Your task to perform on an android device: Open privacy settings Image 0: 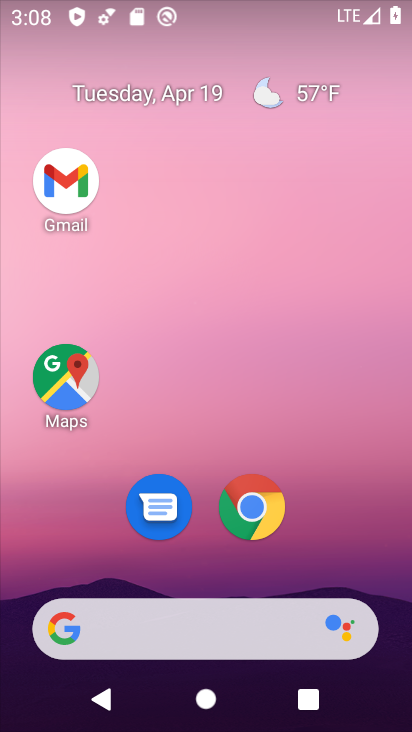
Step 0: click (264, 523)
Your task to perform on an android device: Open privacy settings Image 1: 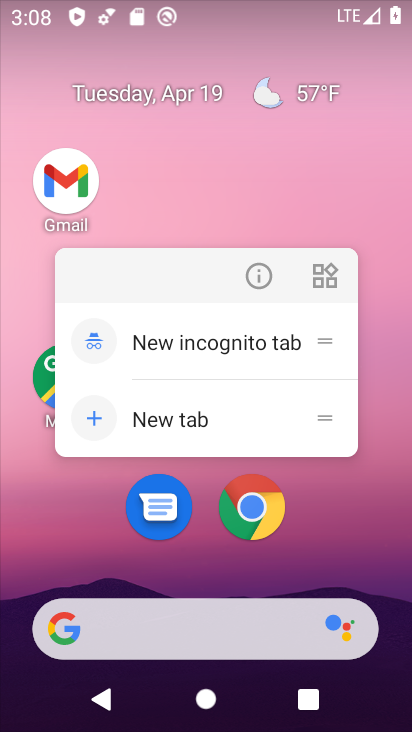
Step 1: click (230, 493)
Your task to perform on an android device: Open privacy settings Image 2: 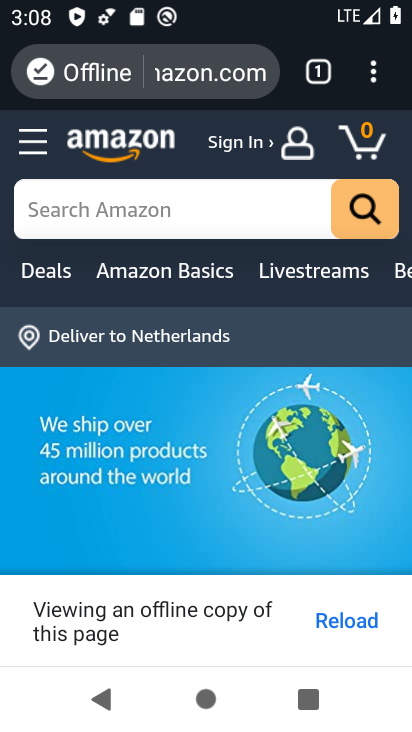
Step 2: click (371, 71)
Your task to perform on an android device: Open privacy settings Image 3: 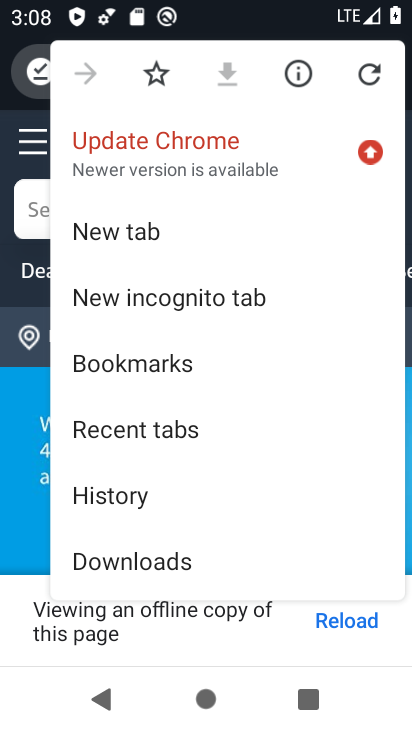
Step 3: drag from (234, 514) to (320, 90)
Your task to perform on an android device: Open privacy settings Image 4: 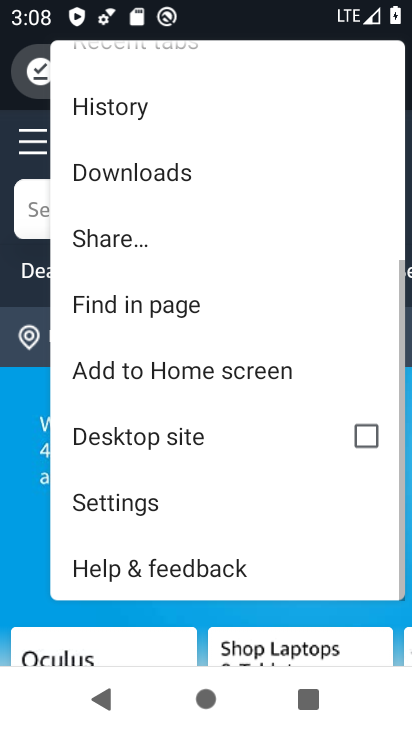
Step 4: click (226, 489)
Your task to perform on an android device: Open privacy settings Image 5: 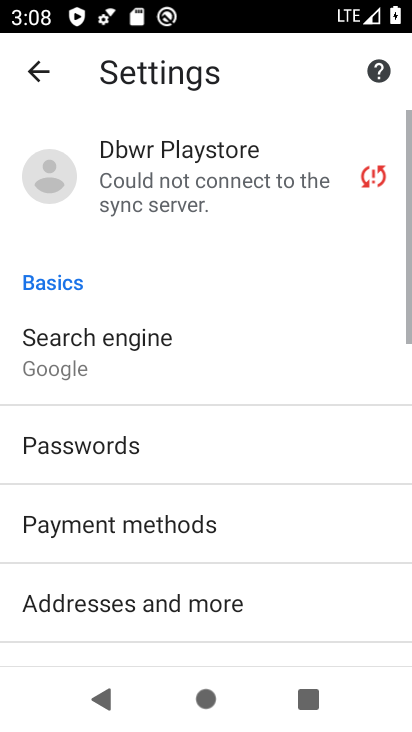
Step 5: drag from (205, 557) to (214, 182)
Your task to perform on an android device: Open privacy settings Image 6: 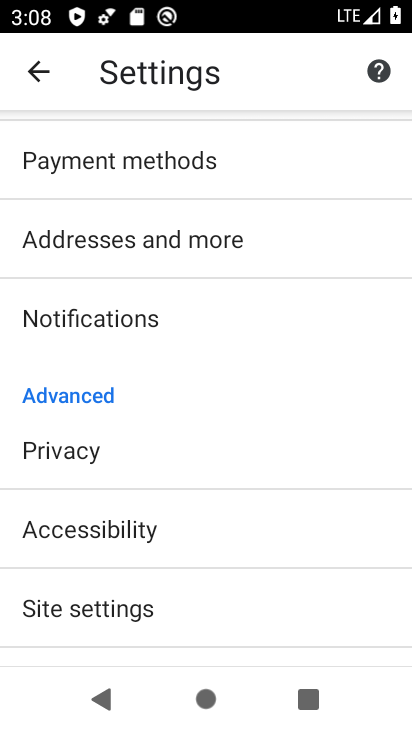
Step 6: click (181, 447)
Your task to perform on an android device: Open privacy settings Image 7: 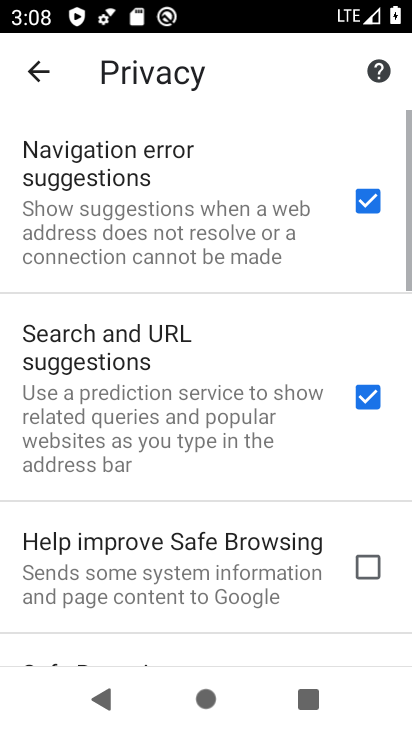
Step 7: task complete